Your task to perform on an android device: Open Google Chrome and open the bookmarks view Image 0: 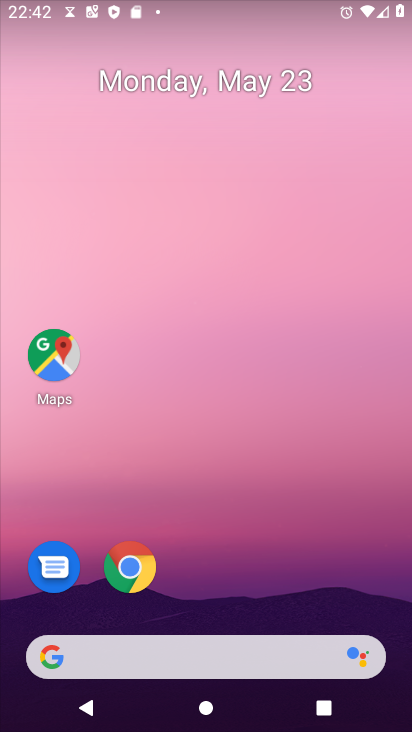
Step 0: click (120, 566)
Your task to perform on an android device: Open Google Chrome and open the bookmarks view Image 1: 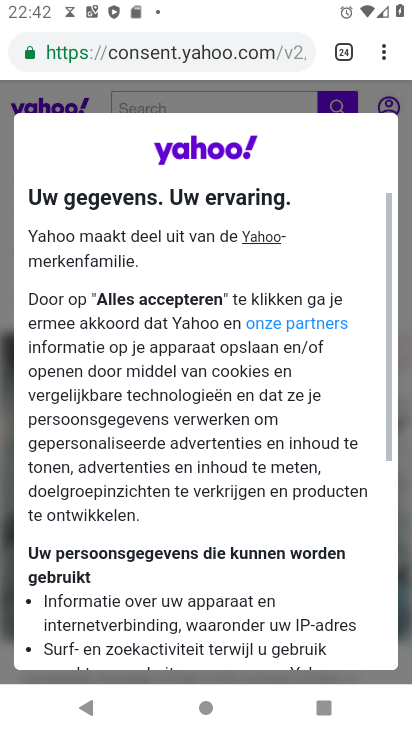
Step 1: click (381, 50)
Your task to perform on an android device: Open Google Chrome and open the bookmarks view Image 2: 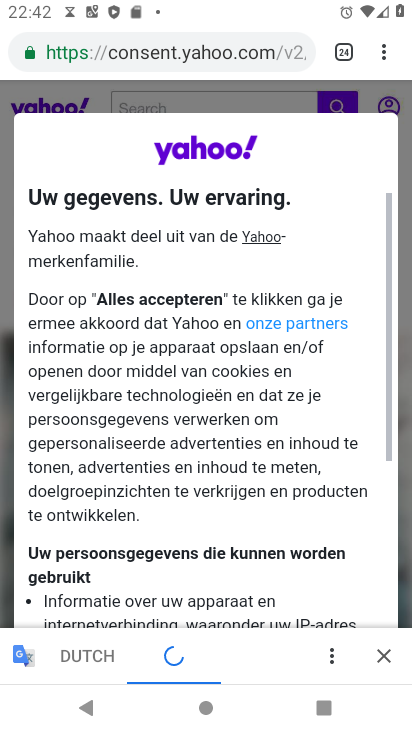
Step 2: click (381, 50)
Your task to perform on an android device: Open Google Chrome and open the bookmarks view Image 3: 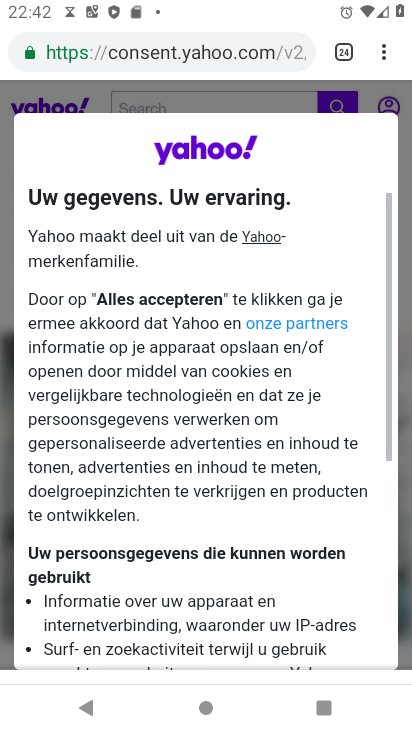
Step 3: click (381, 52)
Your task to perform on an android device: Open Google Chrome and open the bookmarks view Image 4: 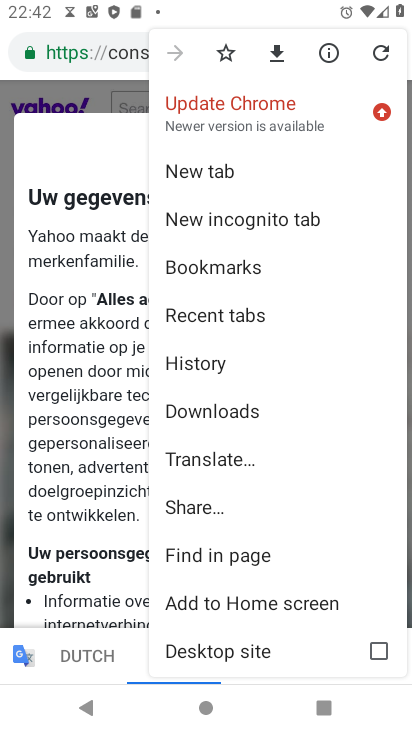
Step 4: click (215, 264)
Your task to perform on an android device: Open Google Chrome and open the bookmarks view Image 5: 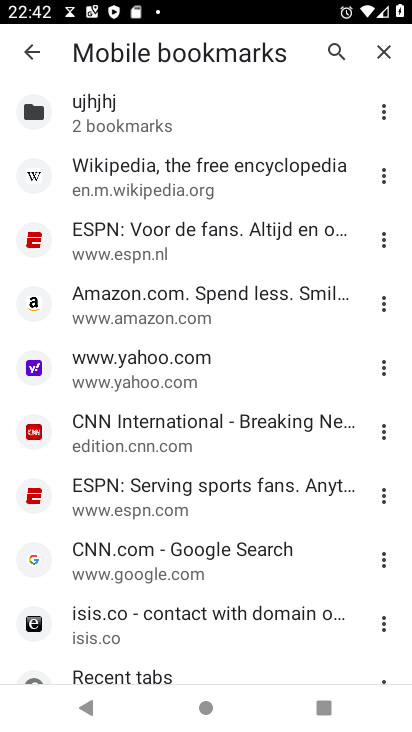
Step 5: task complete